Your task to perform on an android device: Search for hotels in Austin Image 0: 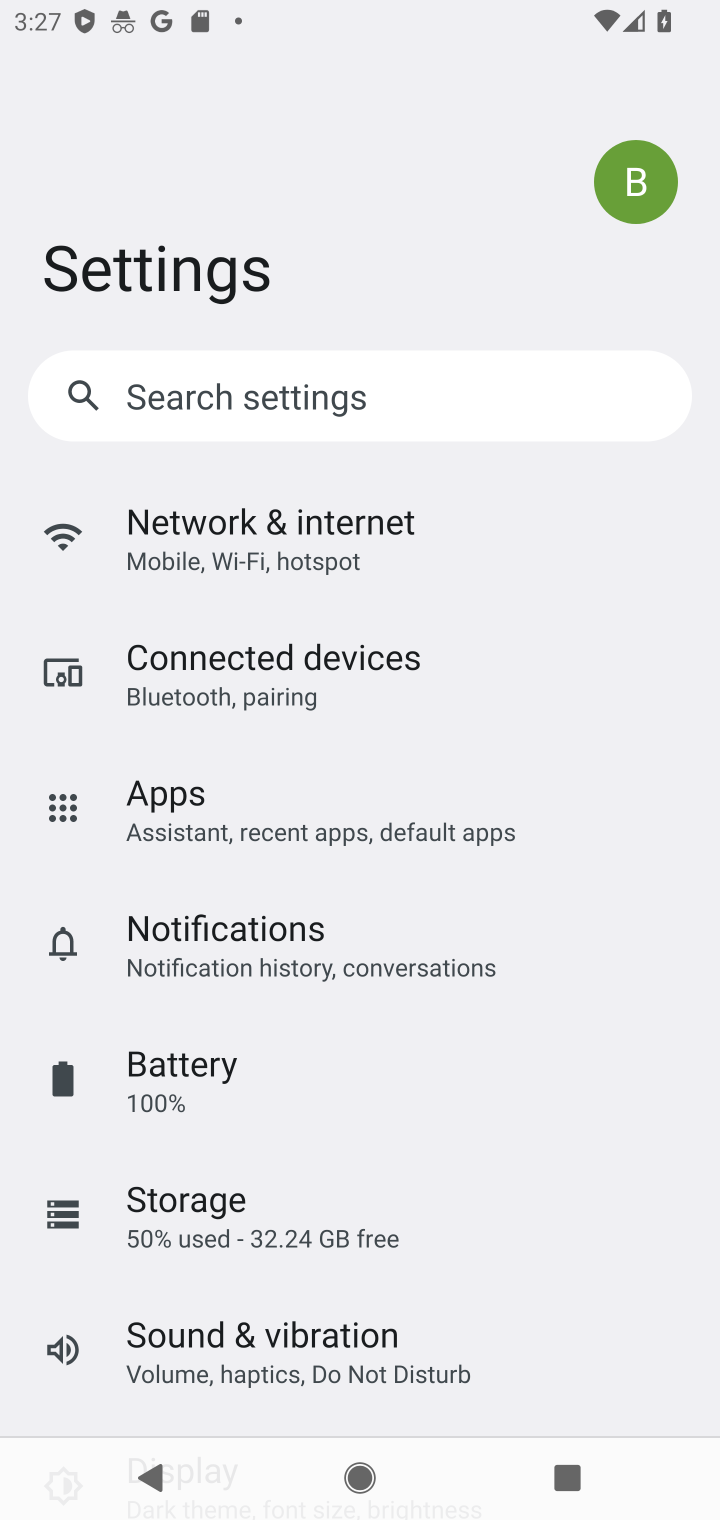
Step 0: press home button
Your task to perform on an android device: Search for hotels in Austin Image 1: 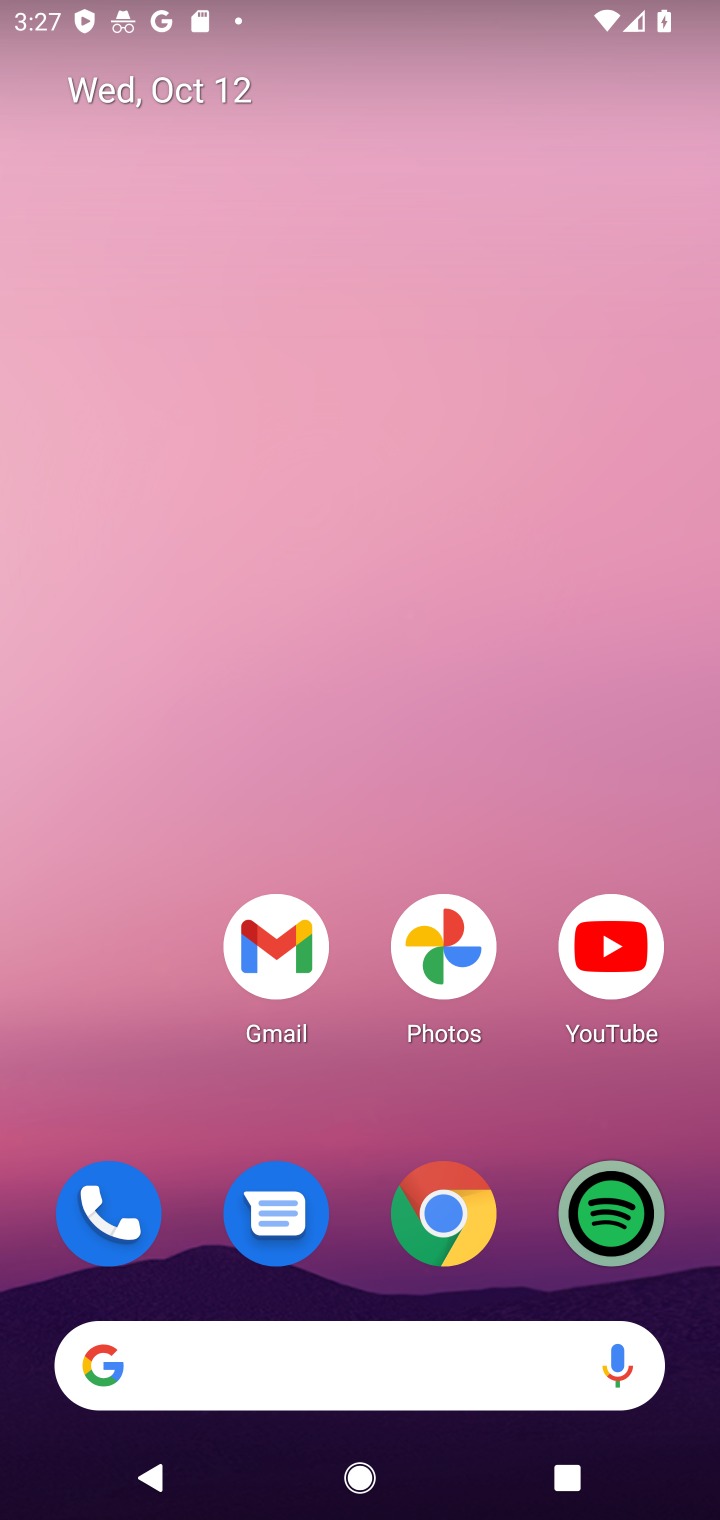
Step 1: click (341, 1384)
Your task to perform on an android device: Search for hotels in Austin Image 2: 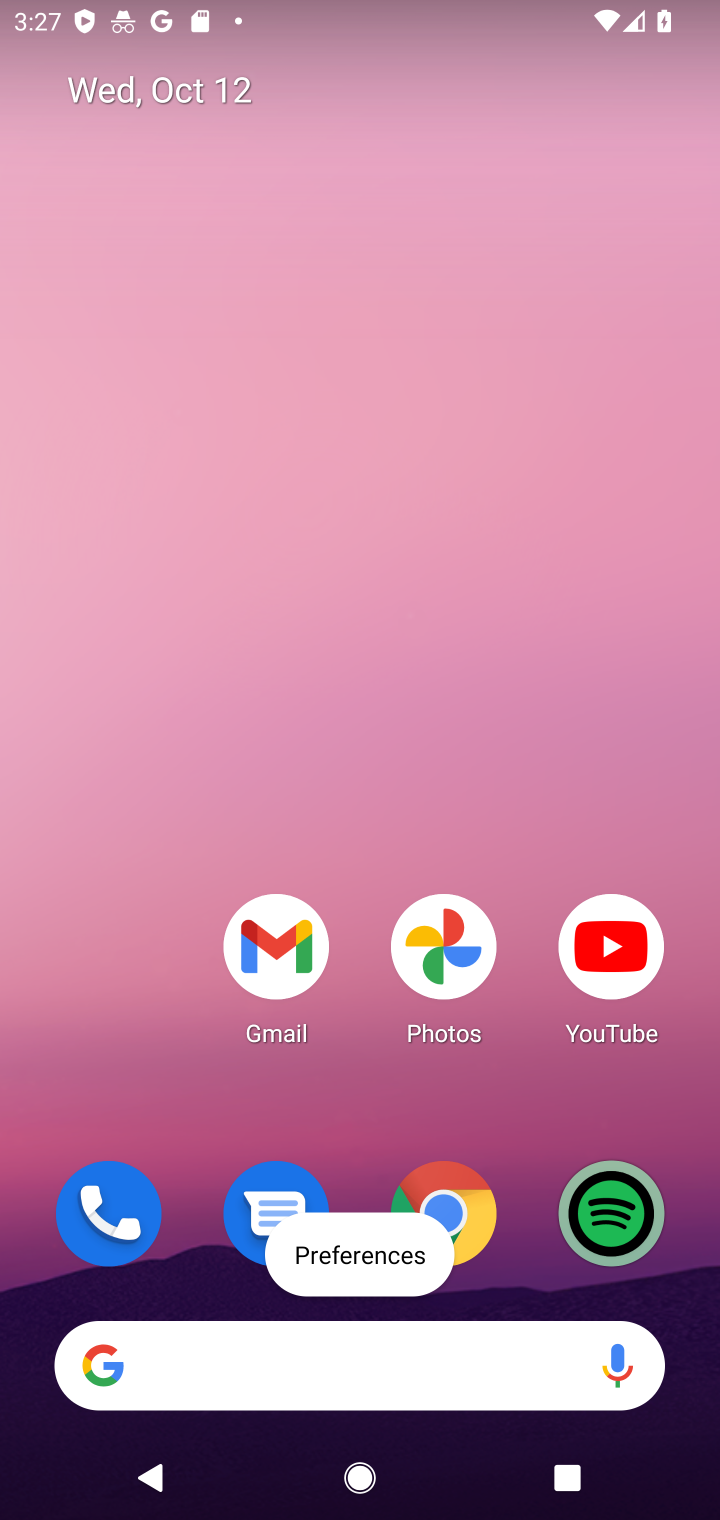
Step 2: click (367, 1373)
Your task to perform on an android device: Search for hotels in Austin Image 3: 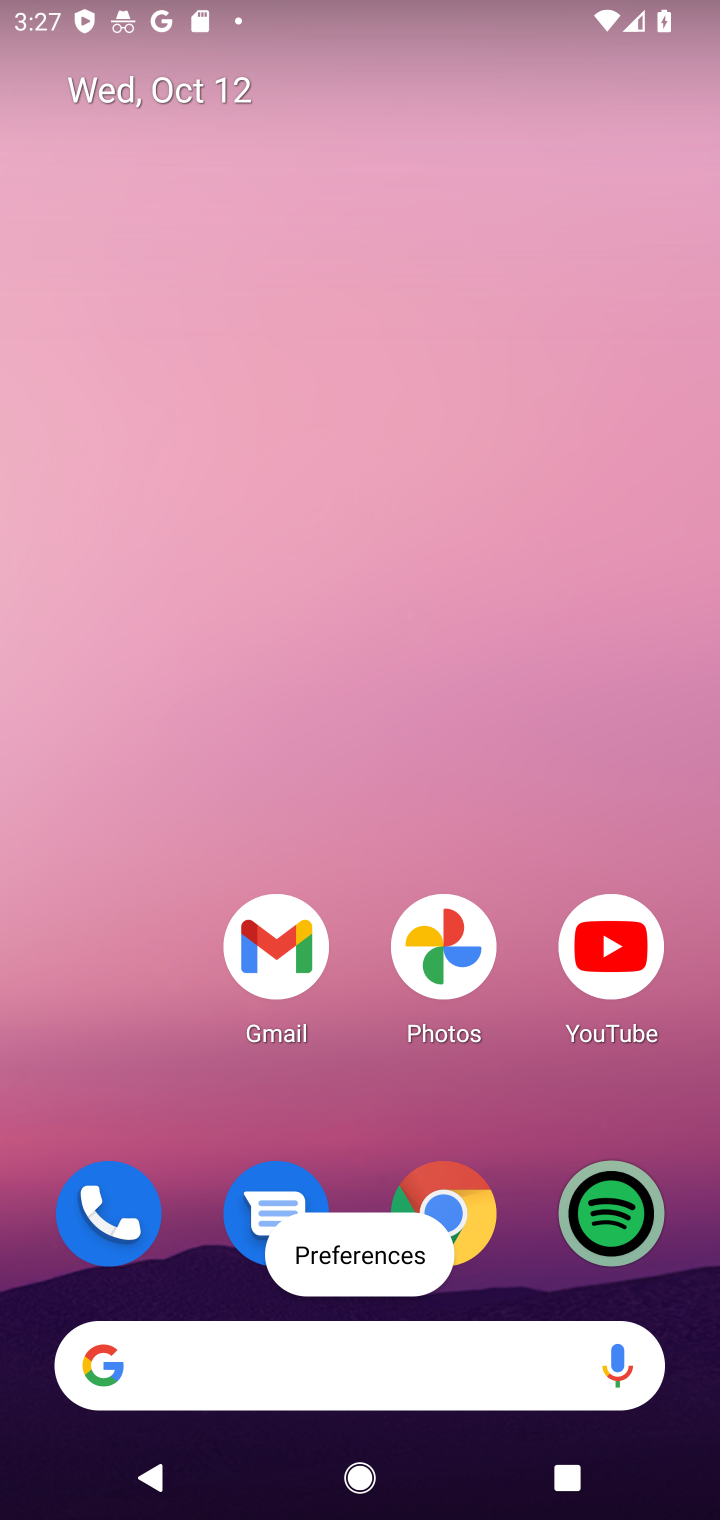
Step 3: click (337, 1382)
Your task to perform on an android device: Search for hotels in Austin Image 4: 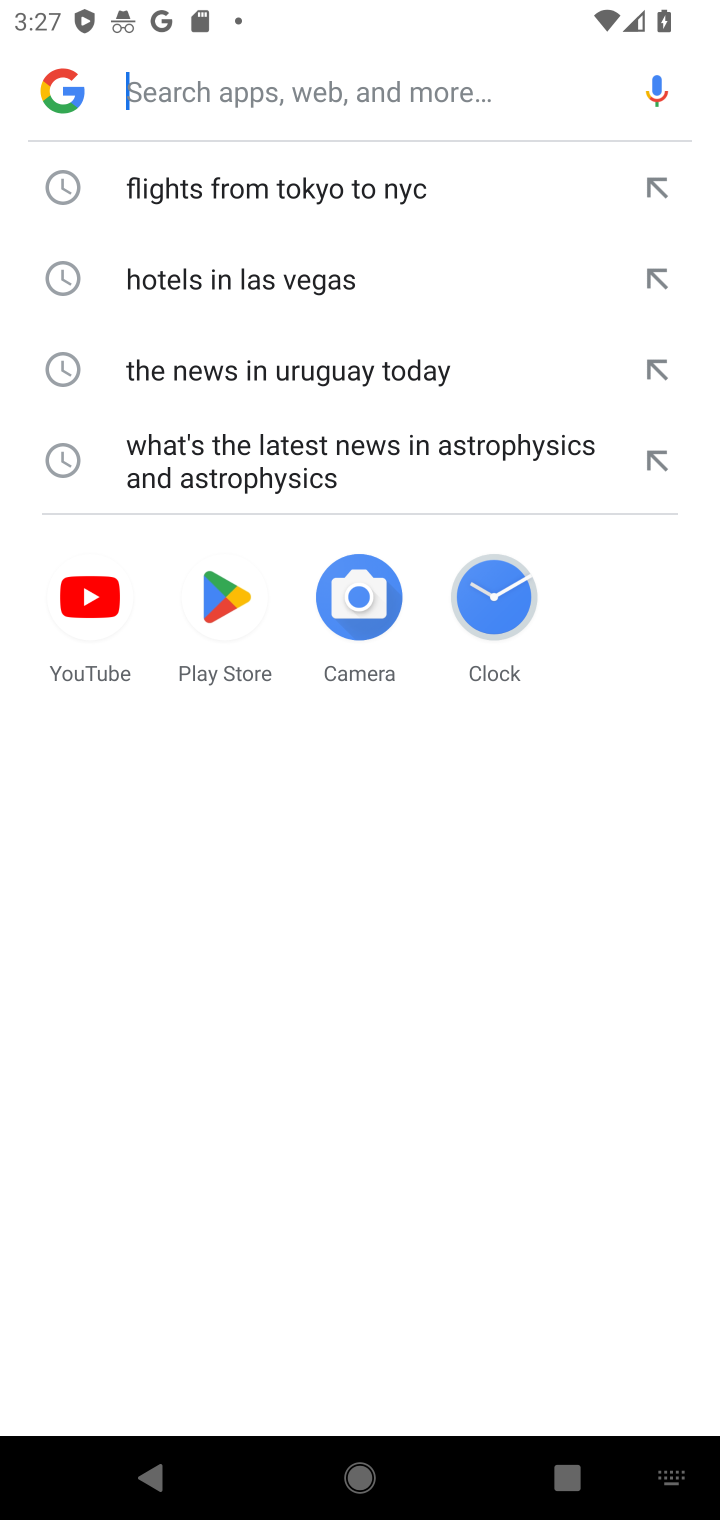
Step 4: click (229, 75)
Your task to perform on an android device: Search for hotels in Austin Image 5: 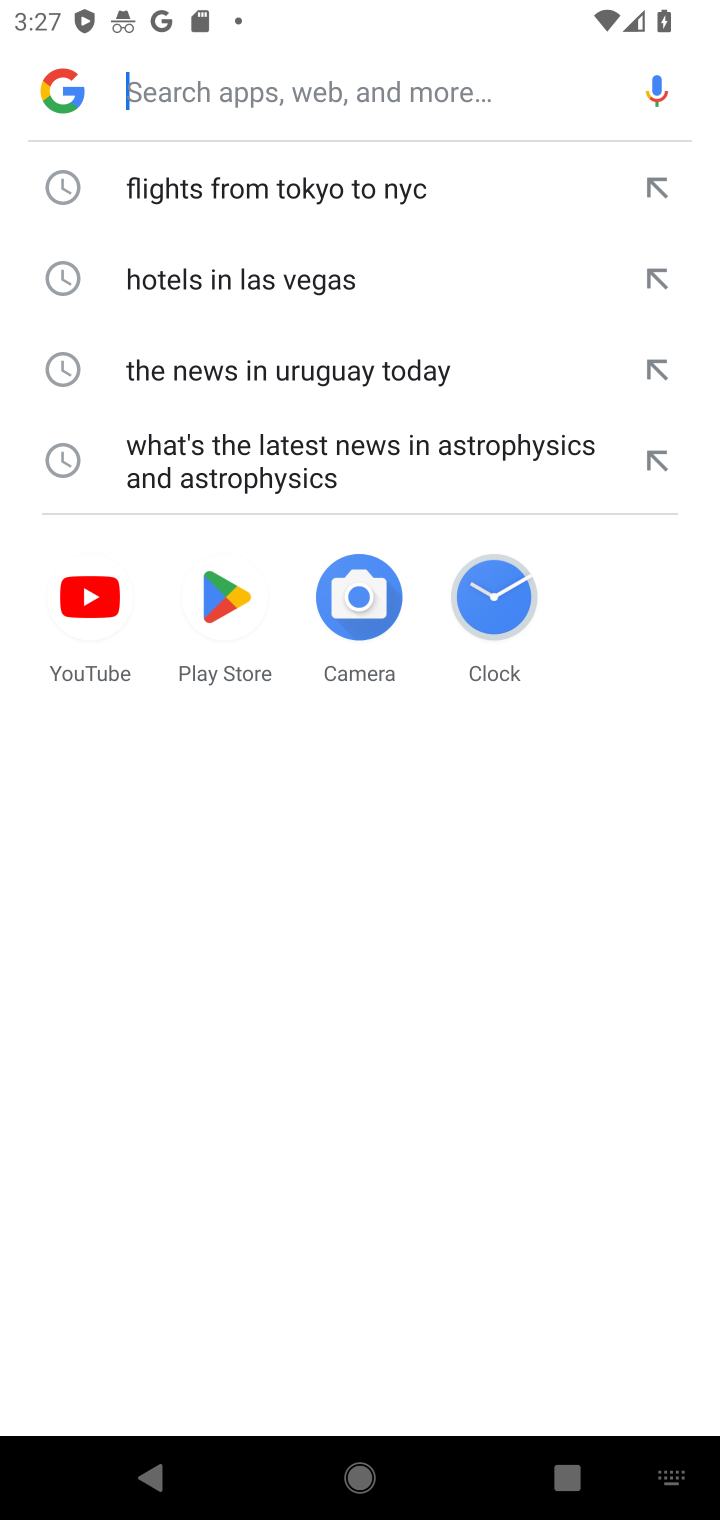
Step 5: type "hotels in Austin"
Your task to perform on an android device: Search for hotels in Austin Image 6: 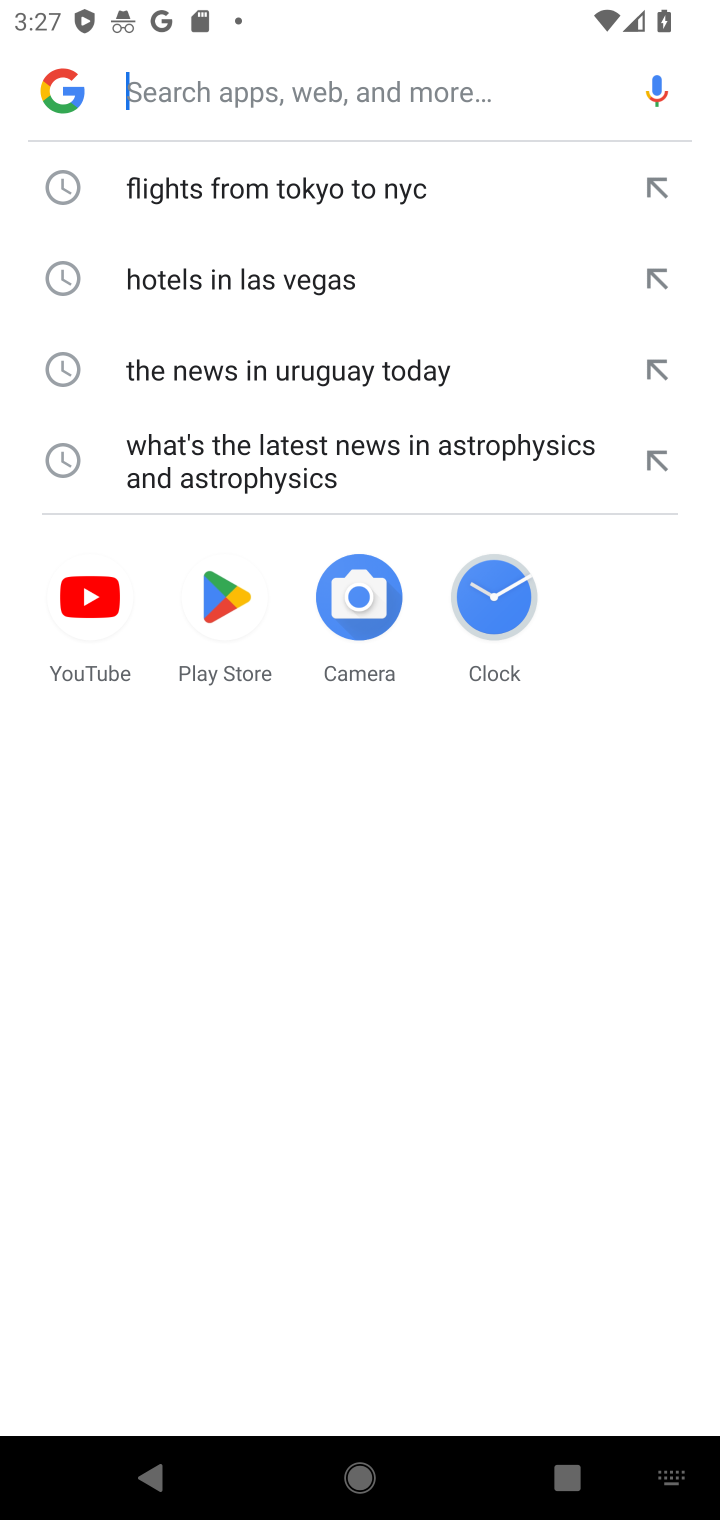
Step 6: click (589, 936)
Your task to perform on an android device: Search for hotels in Austin Image 7: 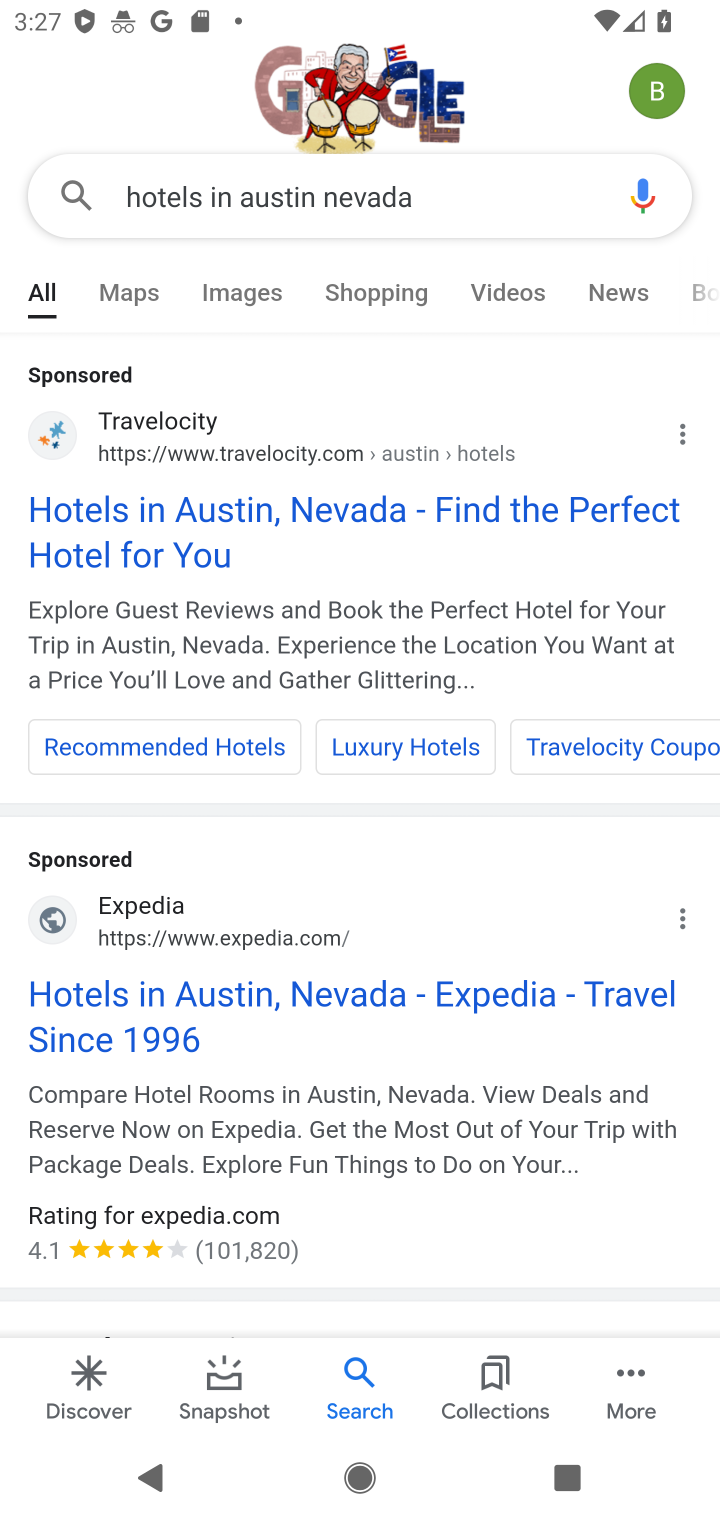
Step 7: task complete